Your task to perform on an android device: turn off priority inbox in the gmail app Image 0: 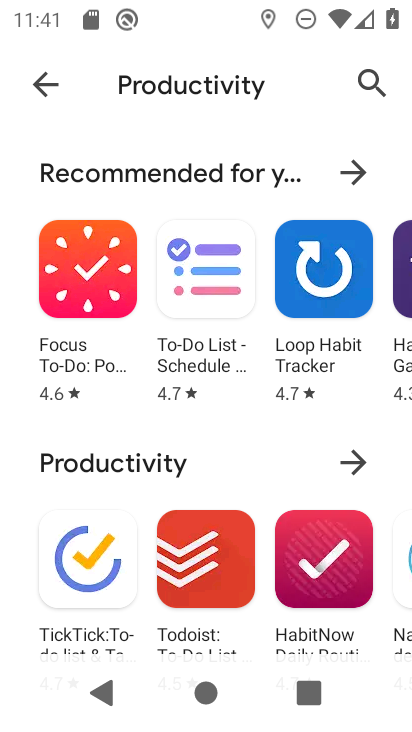
Step 0: press home button
Your task to perform on an android device: turn off priority inbox in the gmail app Image 1: 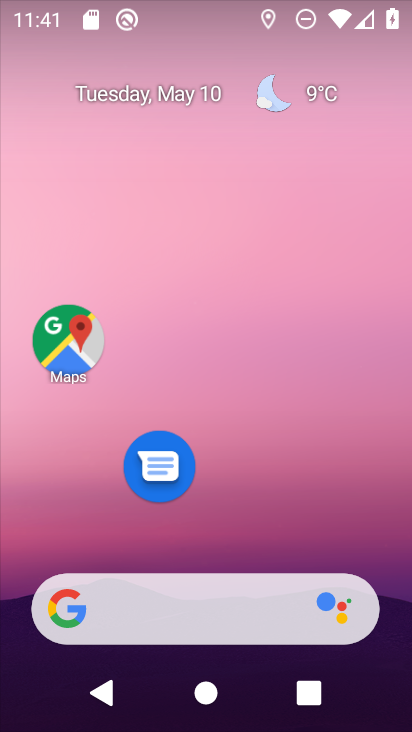
Step 1: drag from (262, 549) to (255, 12)
Your task to perform on an android device: turn off priority inbox in the gmail app Image 2: 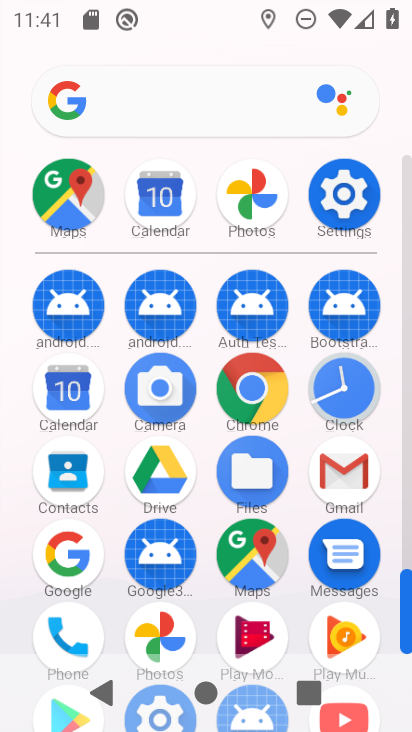
Step 2: click (349, 459)
Your task to perform on an android device: turn off priority inbox in the gmail app Image 3: 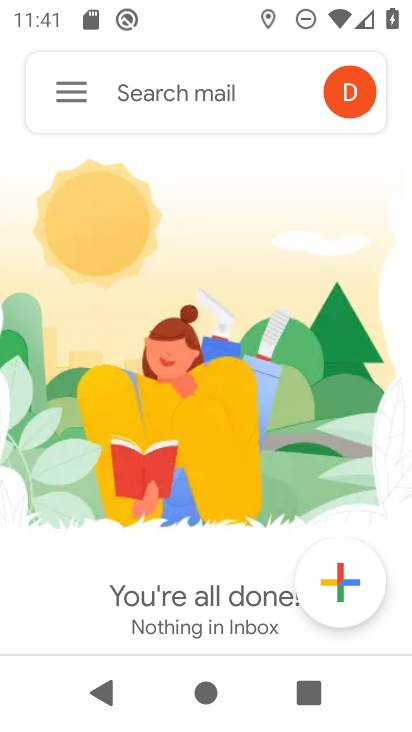
Step 3: click (51, 87)
Your task to perform on an android device: turn off priority inbox in the gmail app Image 4: 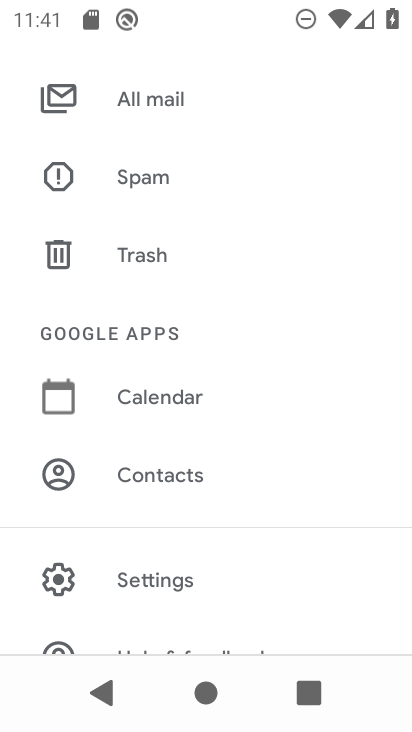
Step 4: click (216, 570)
Your task to perform on an android device: turn off priority inbox in the gmail app Image 5: 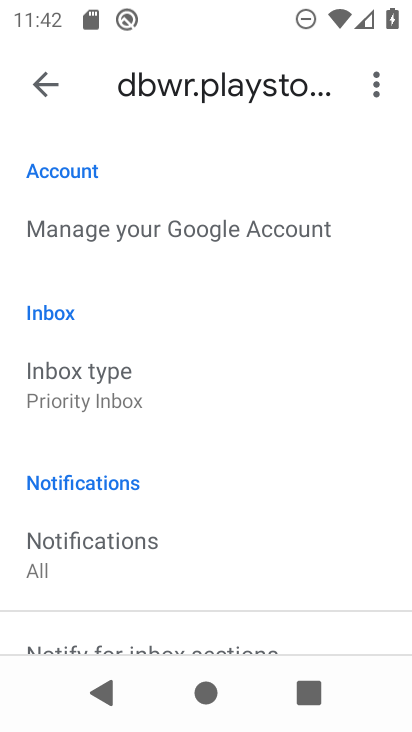
Step 5: click (125, 380)
Your task to perform on an android device: turn off priority inbox in the gmail app Image 6: 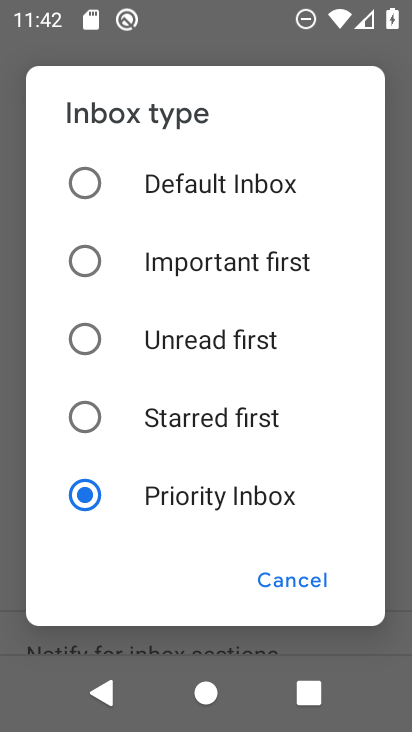
Step 6: click (231, 183)
Your task to perform on an android device: turn off priority inbox in the gmail app Image 7: 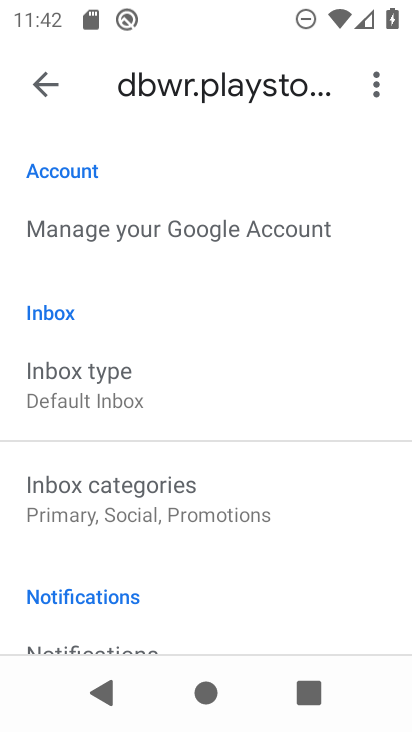
Step 7: task complete